Your task to perform on an android device: find snoozed emails in the gmail app Image 0: 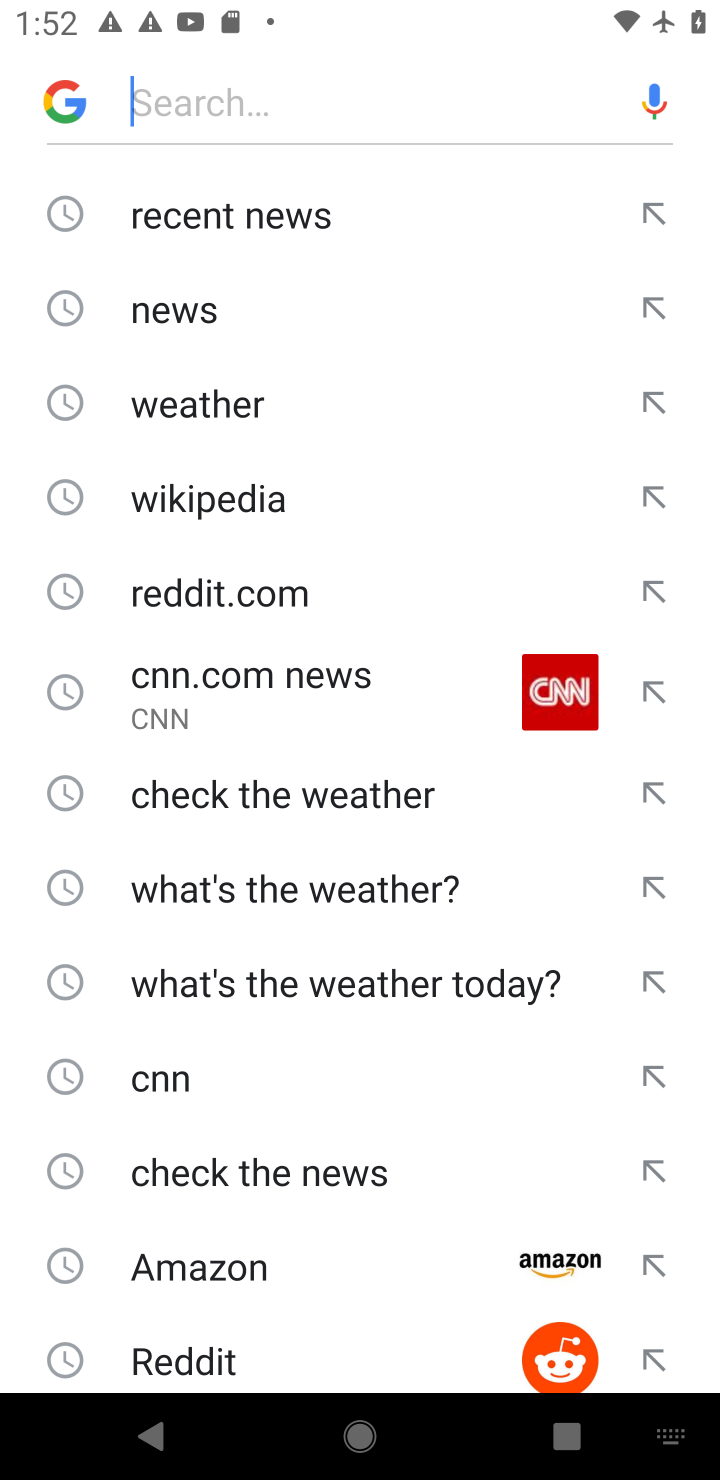
Step 0: press home button
Your task to perform on an android device: find snoozed emails in the gmail app Image 1: 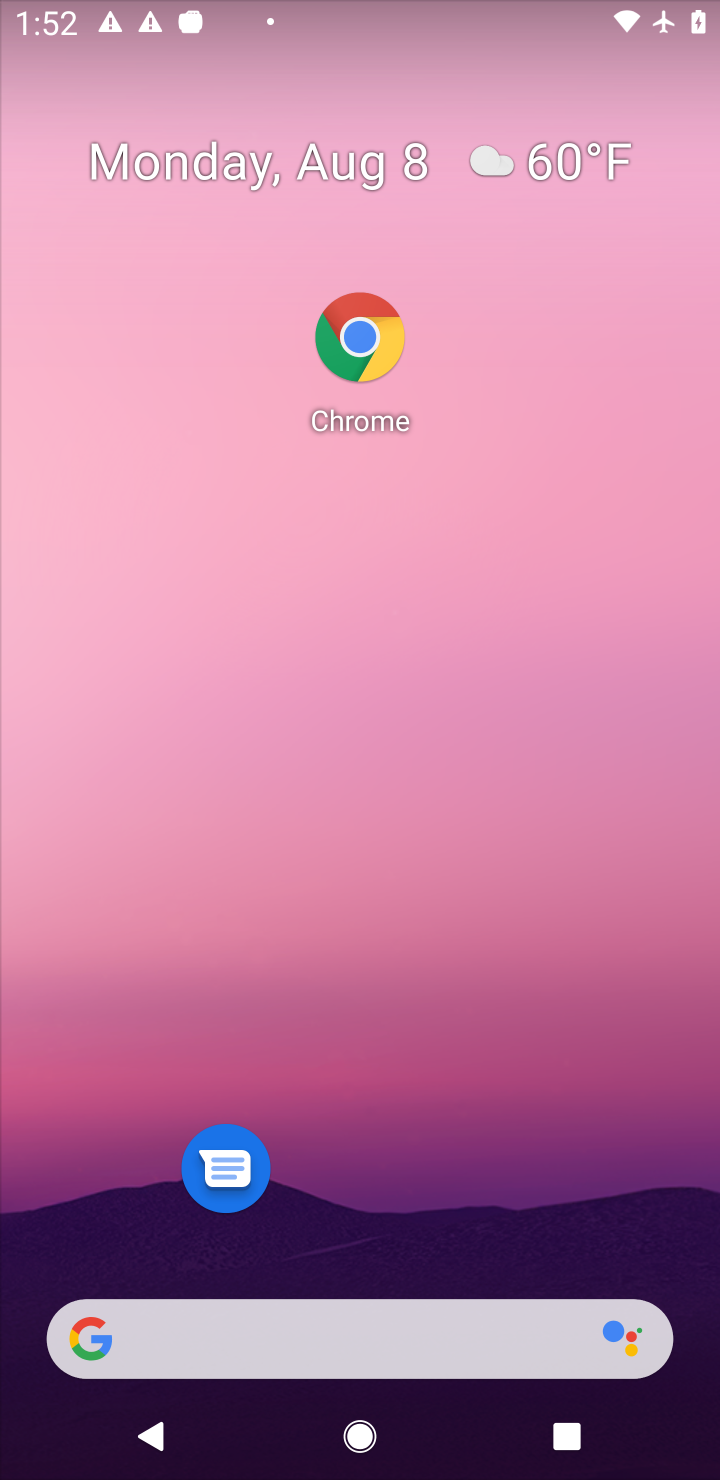
Step 1: drag from (433, 1293) to (94, 46)
Your task to perform on an android device: find snoozed emails in the gmail app Image 2: 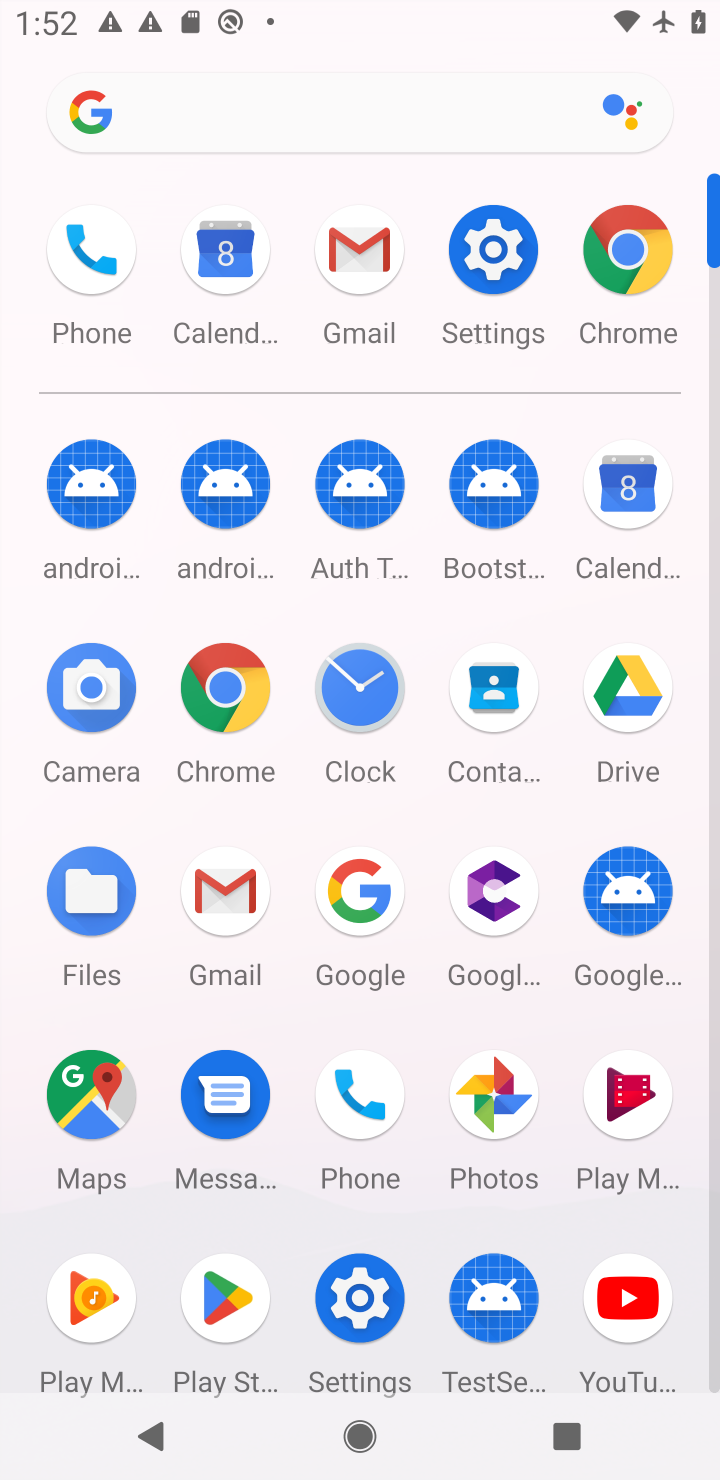
Step 2: click (242, 937)
Your task to perform on an android device: find snoozed emails in the gmail app Image 3: 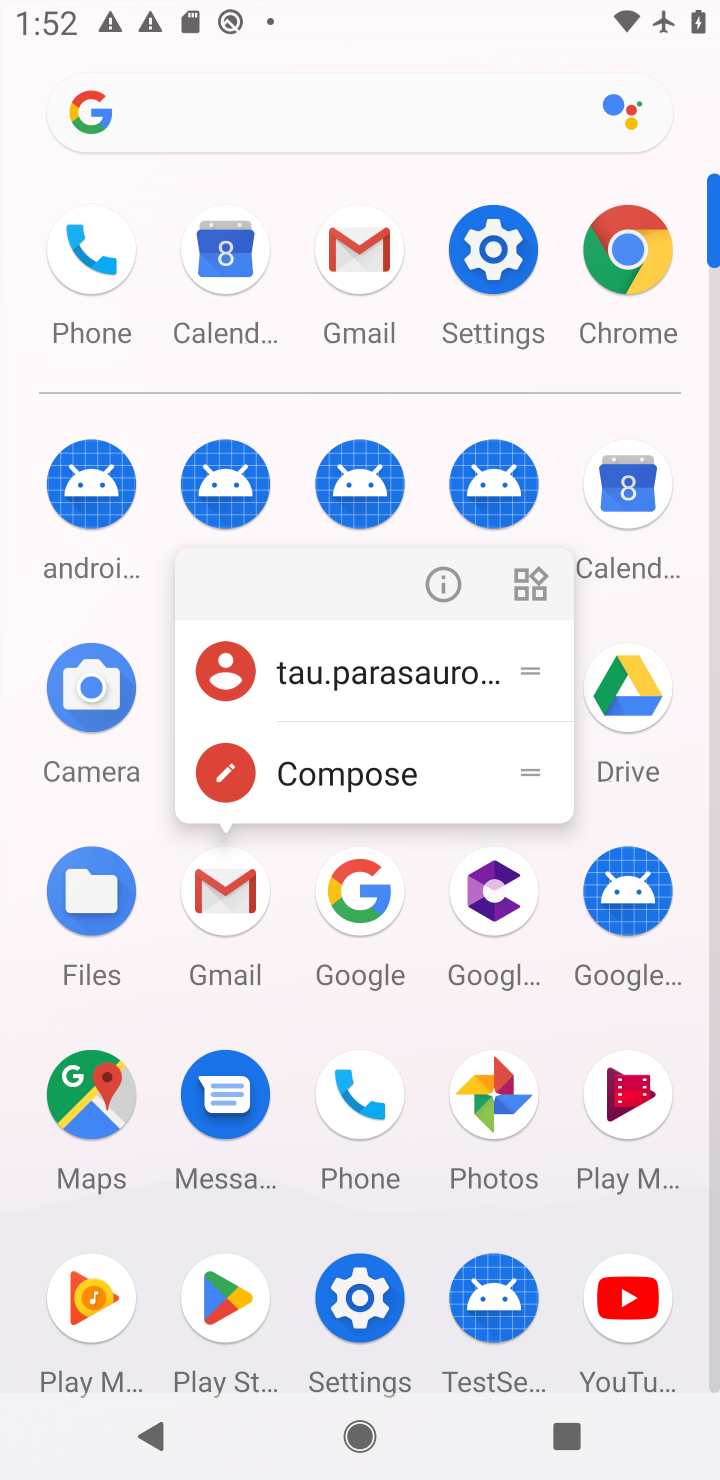
Step 3: click (242, 937)
Your task to perform on an android device: find snoozed emails in the gmail app Image 4: 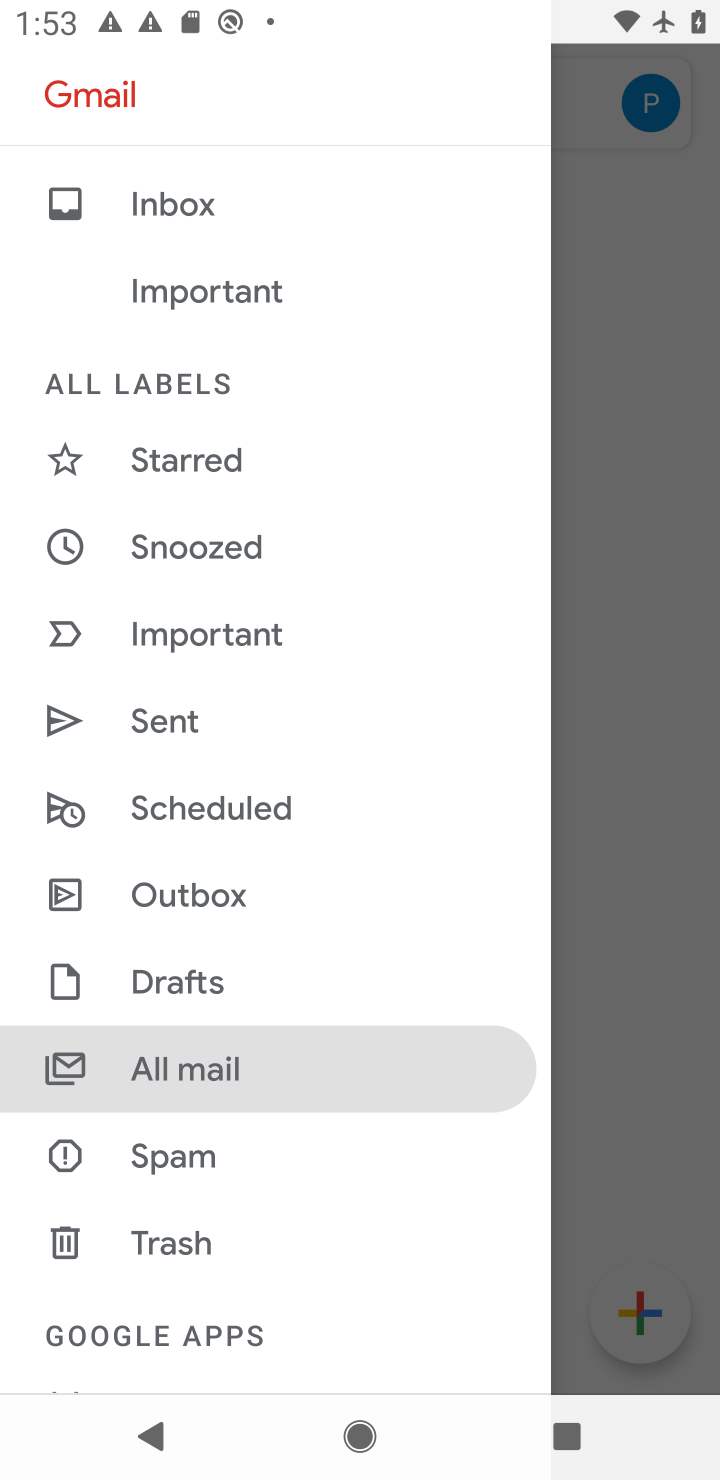
Step 4: click (242, 937)
Your task to perform on an android device: find snoozed emails in the gmail app Image 5: 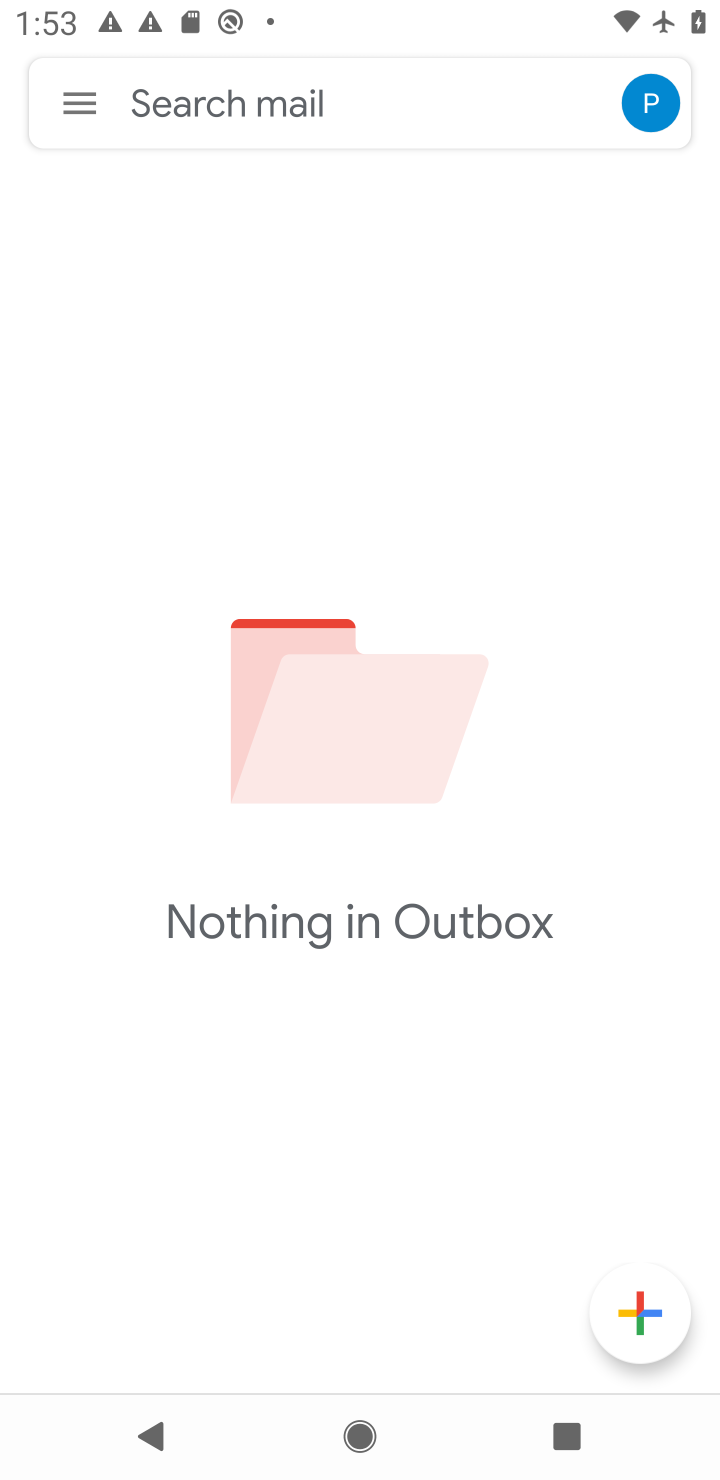
Step 5: task complete